Your task to perform on an android device: open a new tab in the chrome app Image 0: 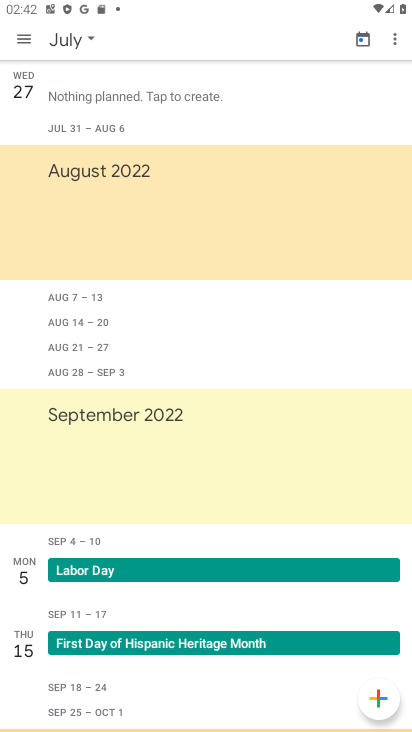
Step 0: press home button
Your task to perform on an android device: open a new tab in the chrome app Image 1: 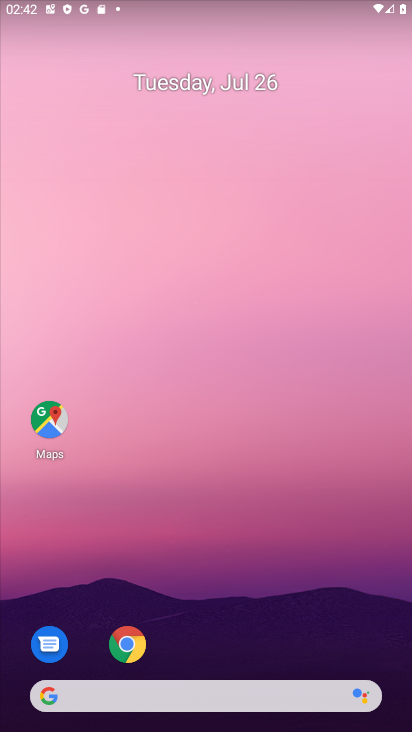
Step 1: click (141, 645)
Your task to perform on an android device: open a new tab in the chrome app Image 2: 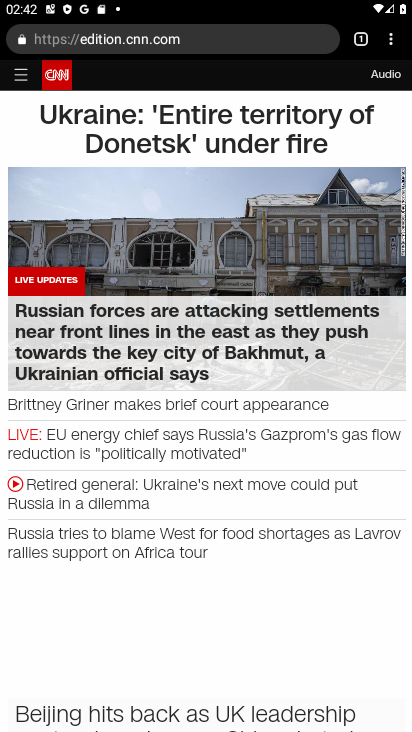
Step 2: click (362, 35)
Your task to perform on an android device: open a new tab in the chrome app Image 3: 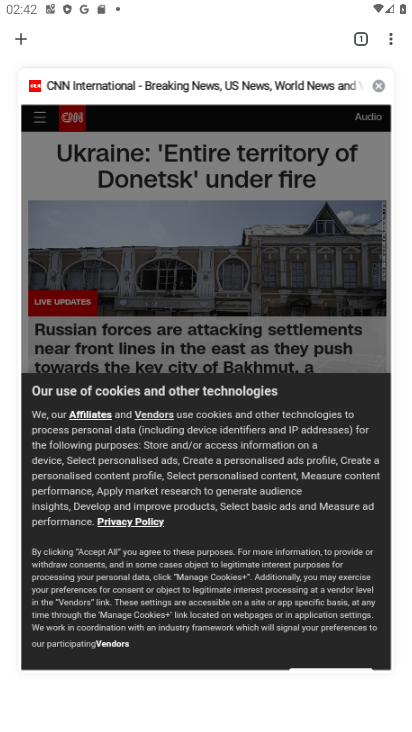
Step 3: click (20, 40)
Your task to perform on an android device: open a new tab in the chrome app Image 4: 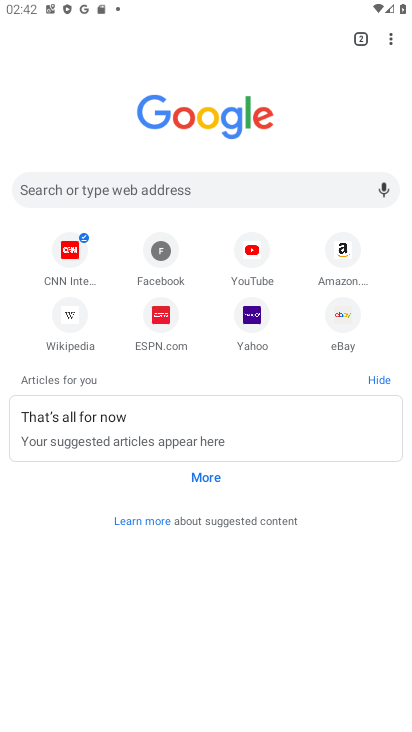
Step 4: task complete